Your task to perform on an android device: change text size in settings app Image 0: 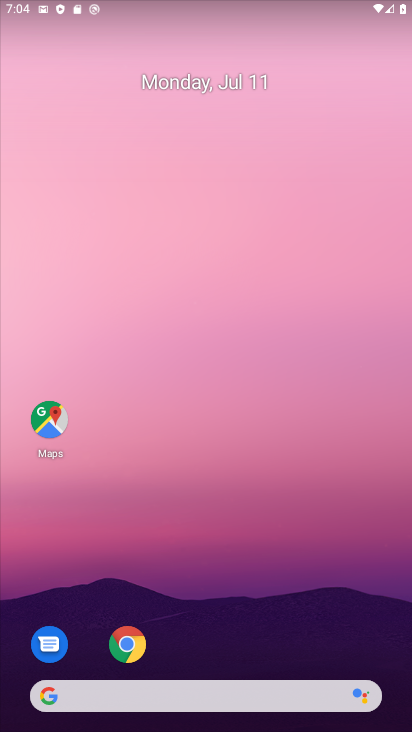
Step 0: drag from (255, 595) to (185, 120)
Your task to perform on an android device: change text size in settings app Image 1: 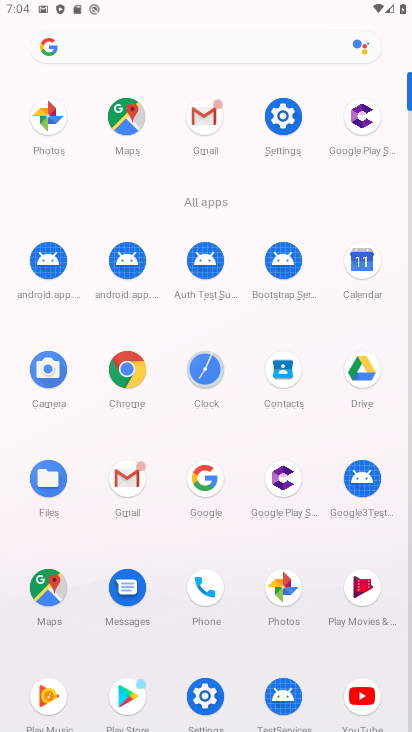
Step 1: click (200, 693)
Your task to perform on an android device: change text size in settings app Image 2: 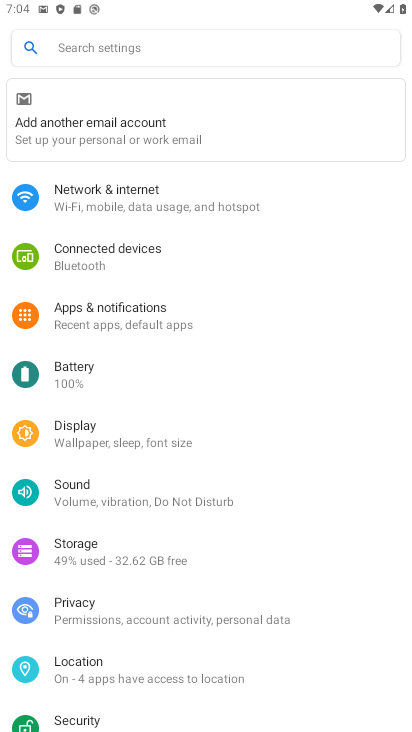
Step 2: click (71, 428)
Your task to perform on an android device: change text size in settings app Image 3: 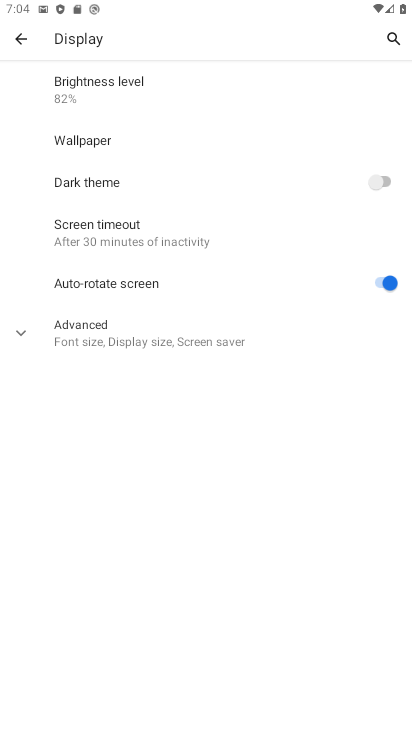
Step 3: click (95, 334)
Your task to perform on an android device: change text size in settings app Image 4: 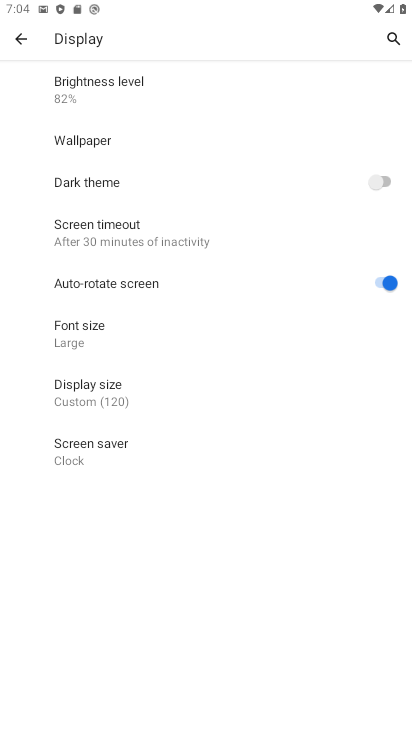
Step 4: click (75, 324)
Your task to perform on an android device: change text size in settings app Image 5: 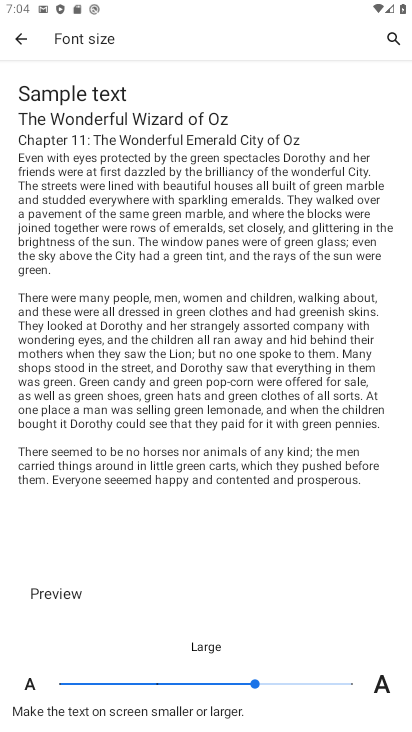
Step 5: click (168, 680)
Your task to perform on an android device: change text size in settings app Image 6: 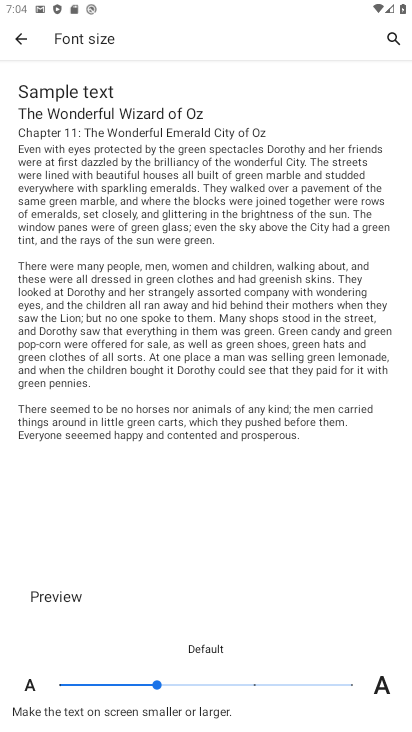
Step 6: task complete